Your task to perform on an android device: create a new album in the google photos Image 0: 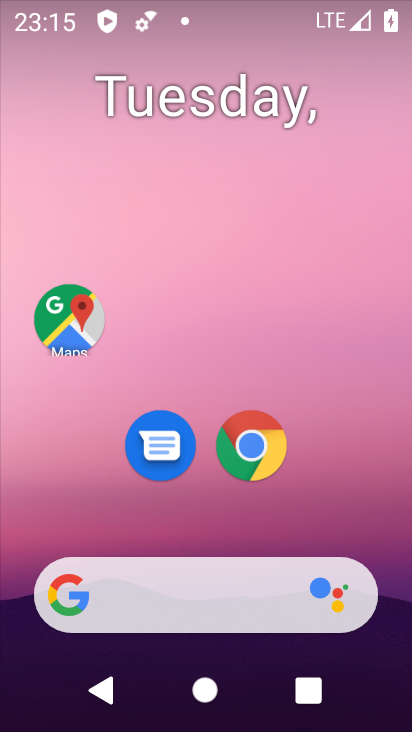
Step 0: drag from (317, 527) to (389, 64)
Your task to perform on an android device: create a new album in the google photos Image 1: 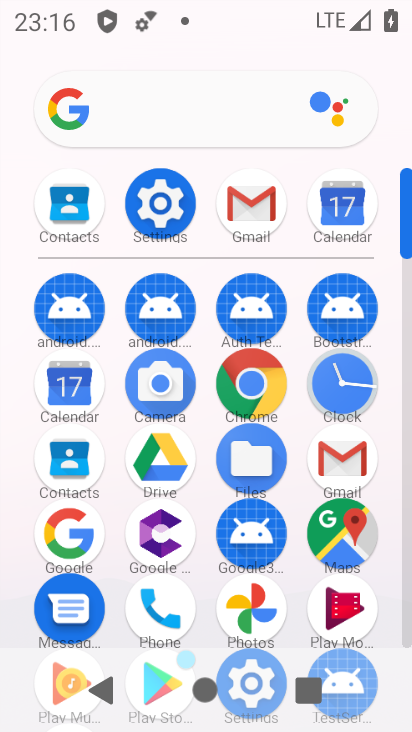
Step 1: click (252, 608)
Your task to perform on an android device: create a new album in the google photos Image 2: 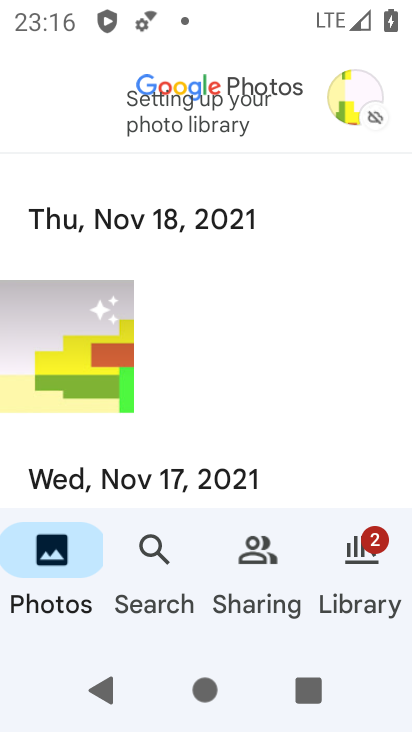
Step 2: click (351, 565)
Your task to perform on an android device: create a new album in the google photos Image 3: 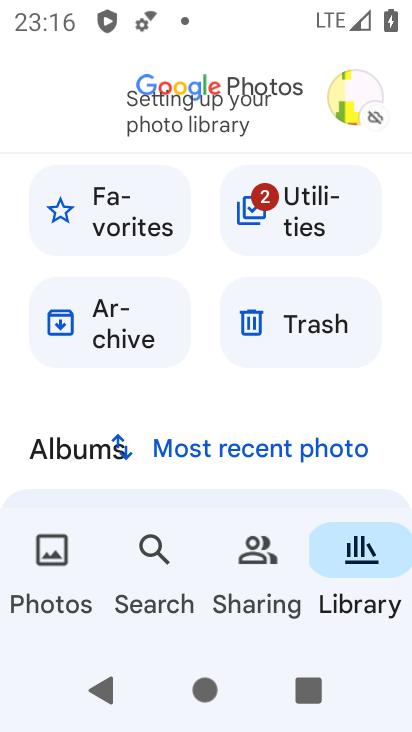
Step 3: drag from (278, 390) to (336, 57)
Your task to perform on an android device: create a new album in the google photos Image 4: 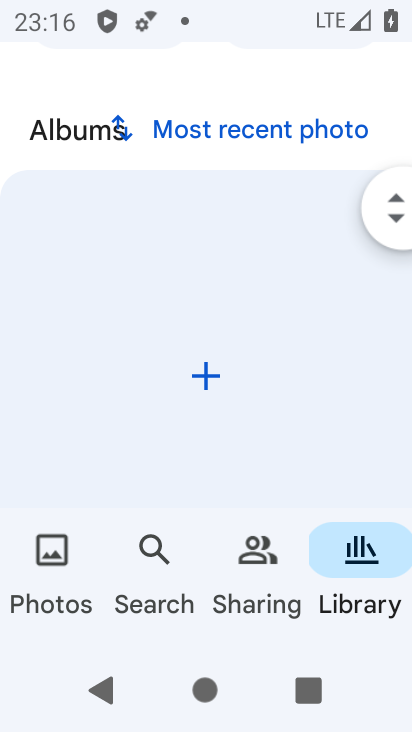
Step 4: click (199, 370)
Your task to perform on an android device: create a new album in the google photos Image 5: 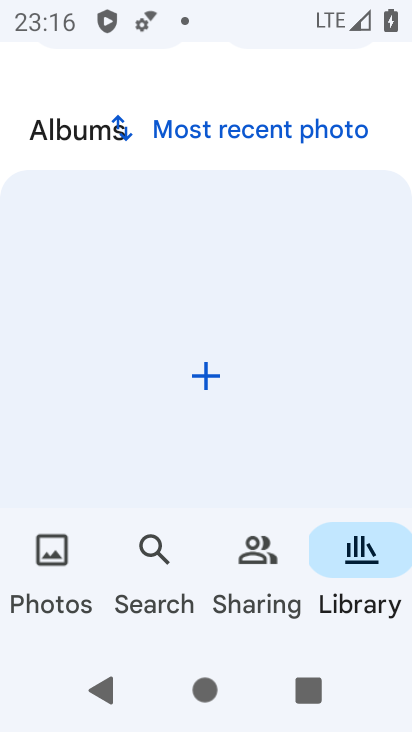
Step 5: click (211, 376)
Your task to perform on an android device: create a new album in the google photos Image 6: 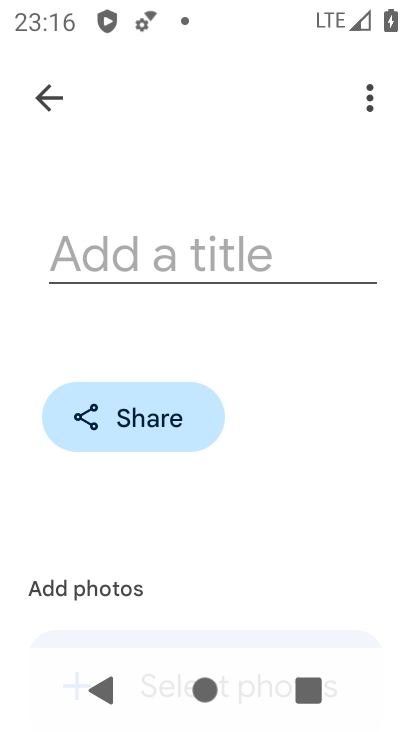
Step 6: click (146, 252)
Your task to perform on an android device: create a new album in the google photos Image 7: 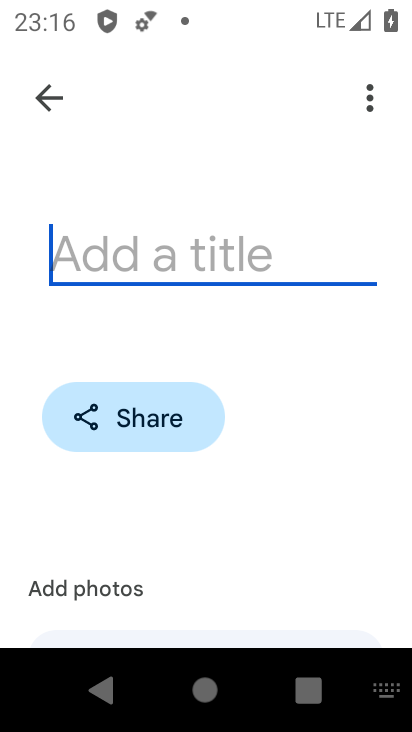
Step 7: type "mlpoknbji"
Your task to perform on an android device: create a new album in the google photos Image 8: 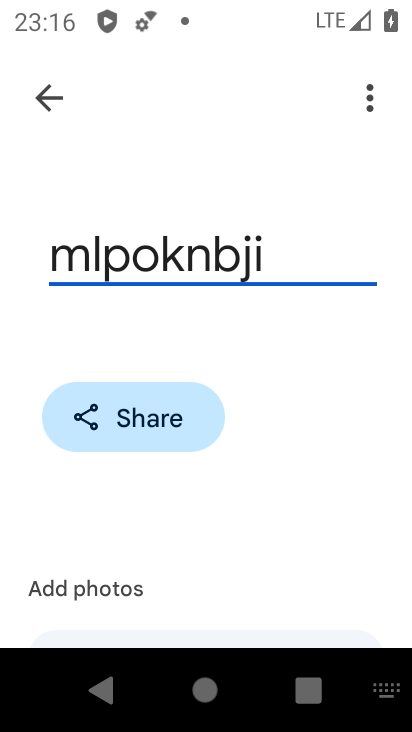
Step 8: drag from (283, 491) to (311, 152)
Your task to perform on an android device: create a new album in the google photos Image 9: 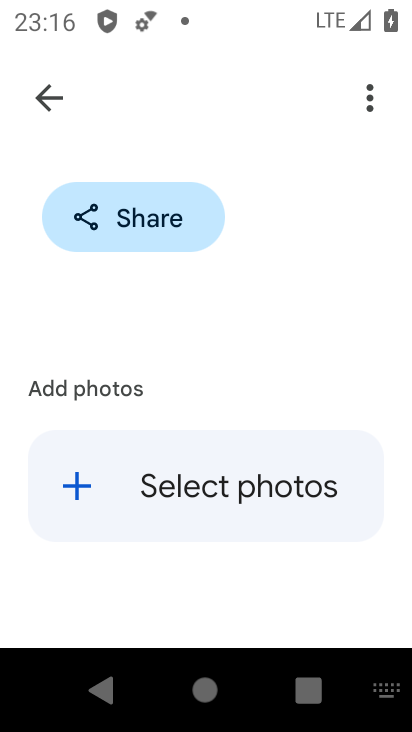
Step 9: click (201, 473)
Your task to perform on an android device: create a new album in the google photos Image 10: 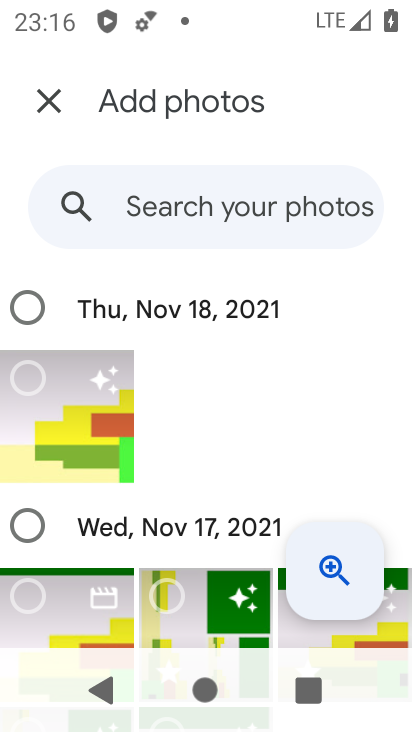
Step 10: click (88, 415)
Your task to perform on an android device: create a new album in the google photos Image 11: 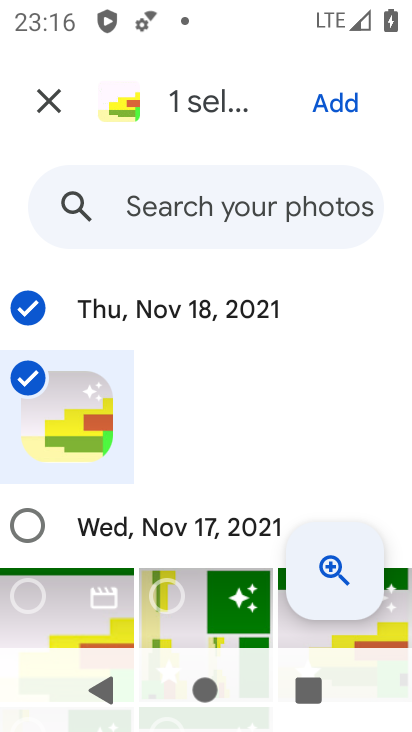
Step 11: click (340, 102)
Your task to perform on an android device: create a new album in the google photos Image 12: 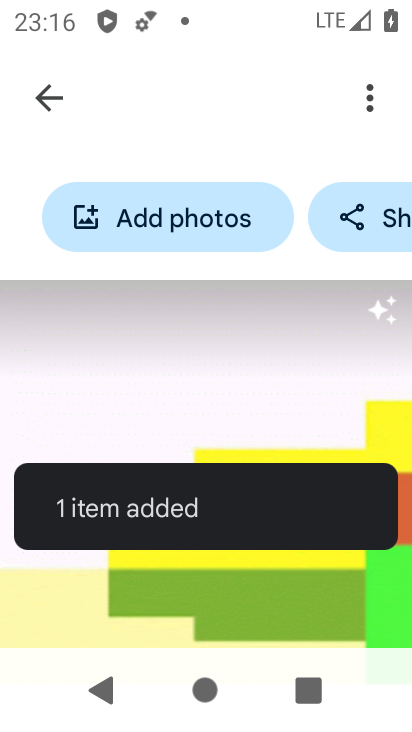
Step 12: task complete